Your task to perform on an android device: Open CNN.com Image 0: 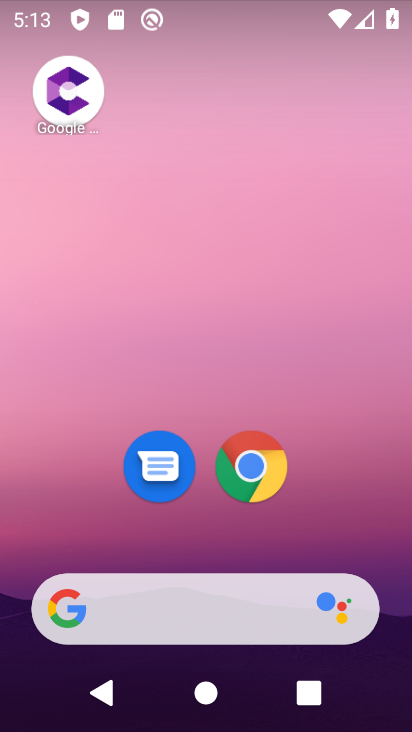
Step 0: click (267, 473)
Your task to perform on an android device: Open CNN.com Image 1: 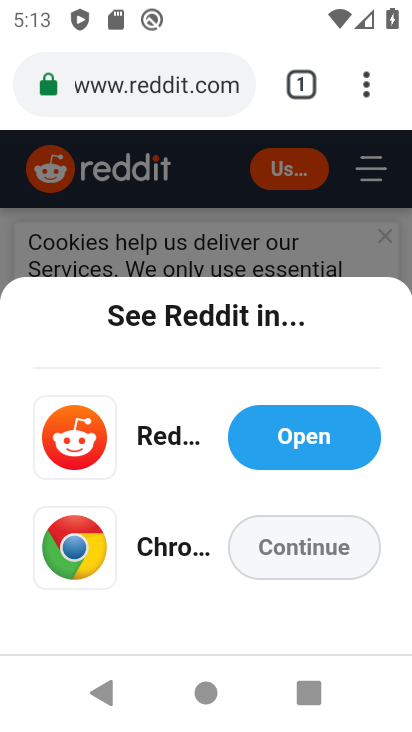
Step 1: click (173, 73)
Your task to perform on an android device: Open CNN.com Image 2: 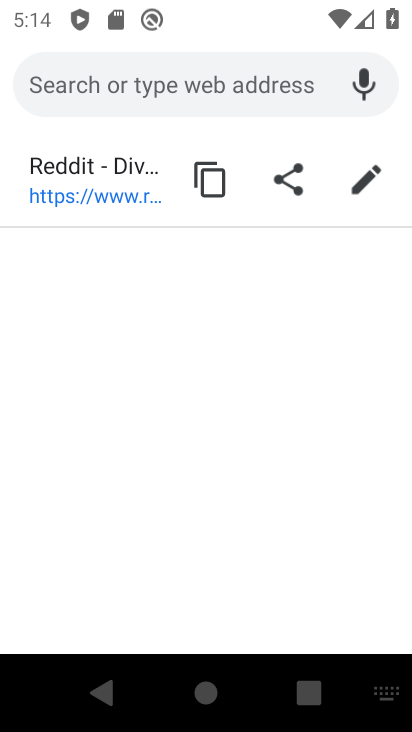
Step 2: type "CNN.com"
Your task to perform on an android device: Open CNN.com Image 3: 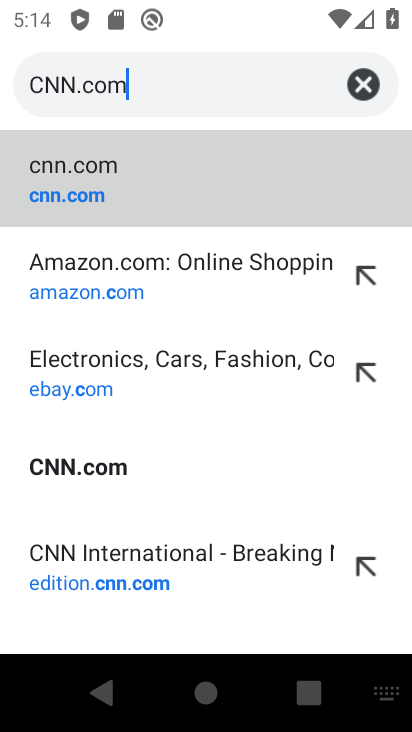
Step 3: type ""
Your task to perform on an android device: Open CNN.com Image 4: 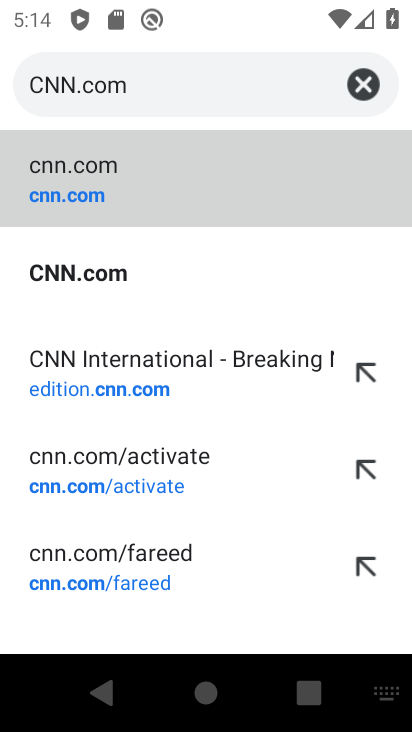
Step 4: click (79, 272)
Your task to perform on an android device: Open CNN.com Image 5: 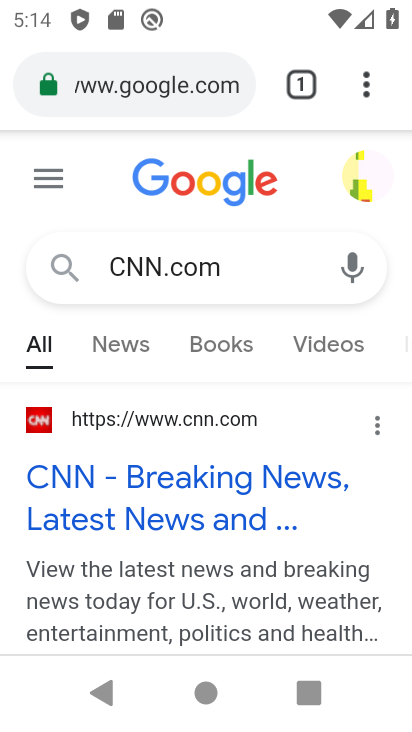
Step 5: click (160, 504)
Your task to perform on an android device: Open CNN.com Image 6: 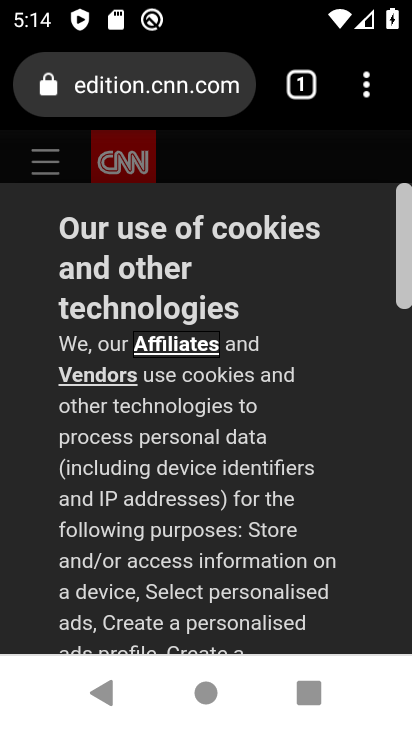
Step 6: task complete